Your task to perform on an android device: Open Youtube and go to the subscriptions tab Image 0: 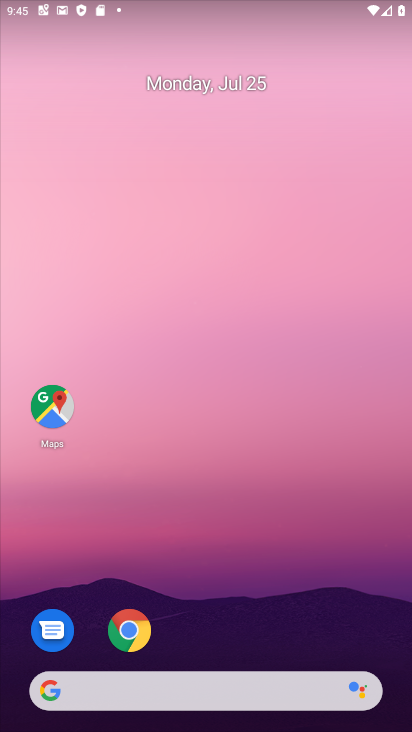
Step 0: press home button
Your task to perform on an android device: Open Youtube and go to the subscriptions tab Image 1: 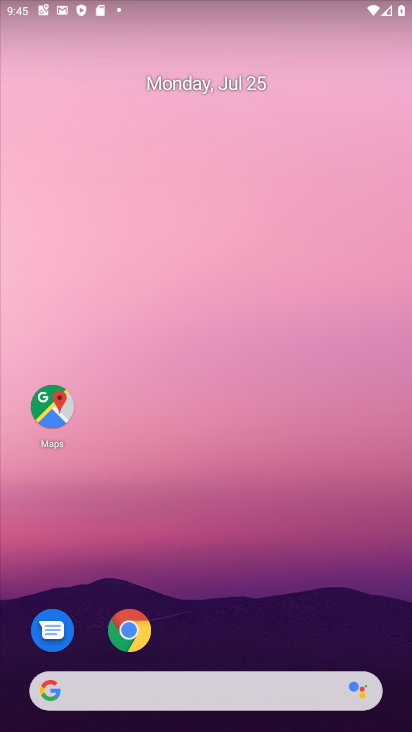
Step 1: drag from (242, 639) to (231, 142)
Your task to perform on an android device: Open Youtube and go to the subscriptions tab Image 2: 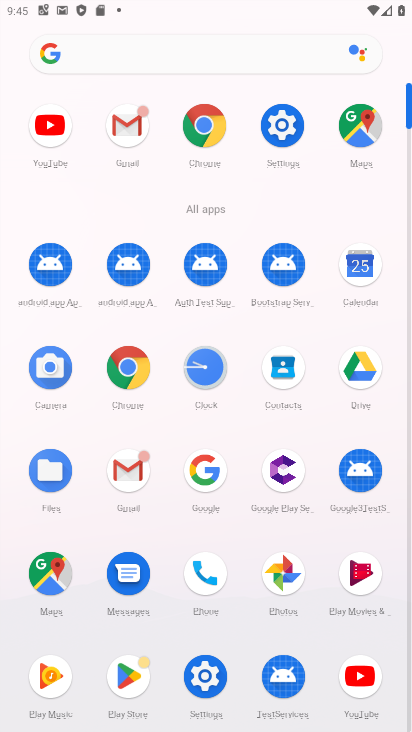
Step 2: click (355, 675)
Your task to perform on an android device: Open Youtube and go to the subscriptions tab Image 3: 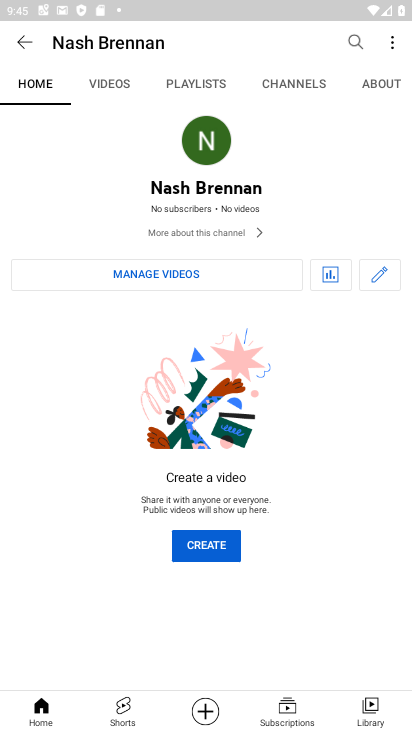
Step 3: click (290, 708)
Your task to perform on an android device: Open Youtube and go to the subscriptions tab Image 4: 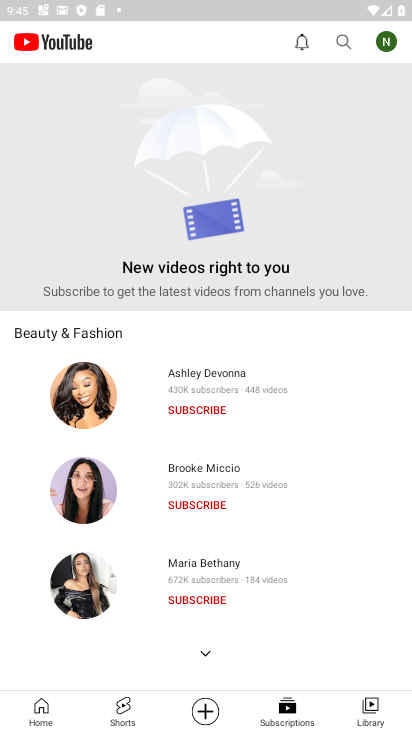
Step 4: task complete